Your task to perform on an android device: clear history in the chrome app Image 0: 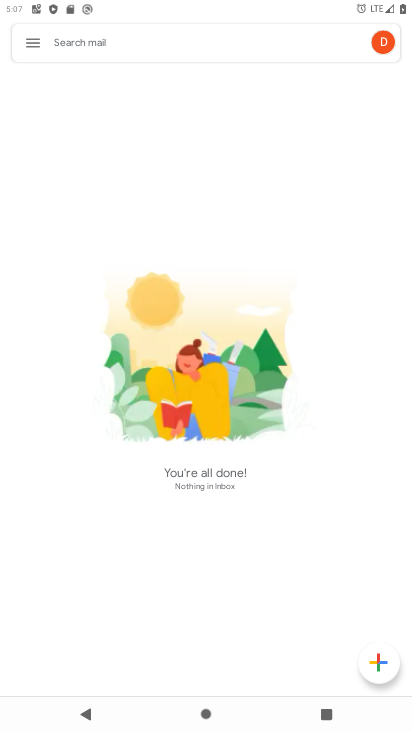
Step 0: press home button
Your task to perform on an android device: clear history in the chrome app Image 1: 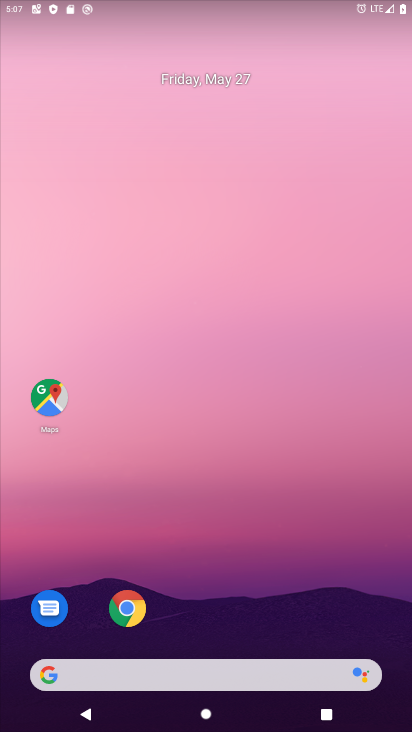
Step 1: click (124, 624)
Your task to perform on an android device: clear history in the chrome app Image 2: 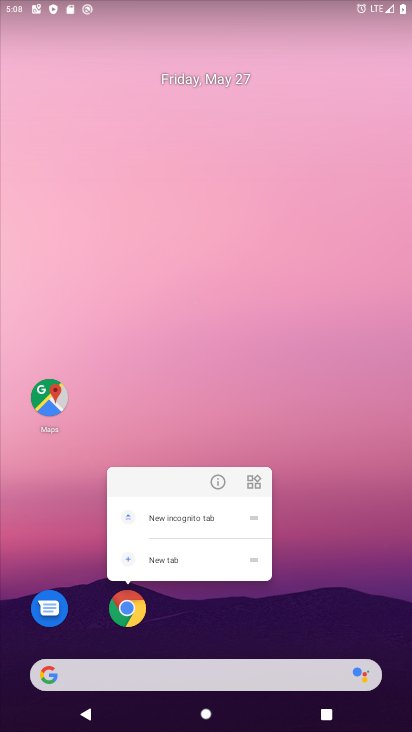
Step 2: click (137, 613)
Your task to perform on an android device: clear history in the chrome app Image 3: 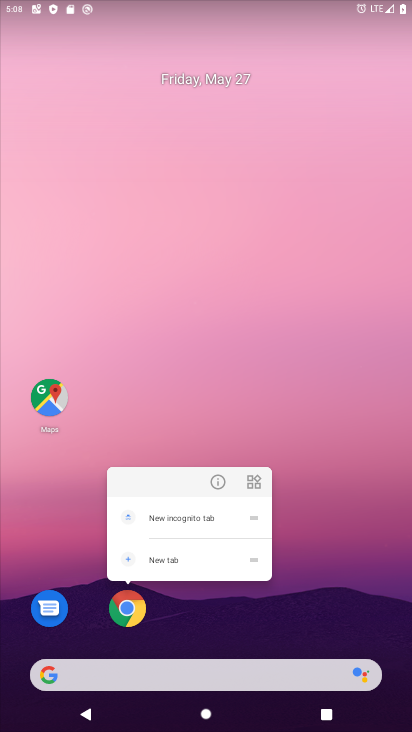
Step 3: click (130, 603)
Your task to perform on an android device: clear history in the chrome app Image 4: 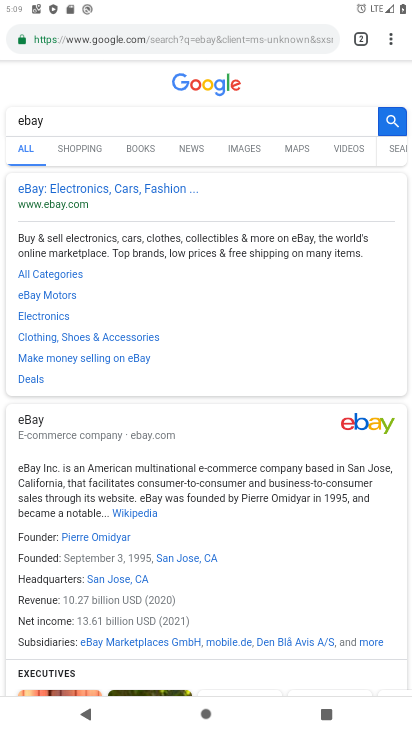
Step 4: click (387, 44)
Your task to perform on an android device: clear history in the chrome app Image 5: 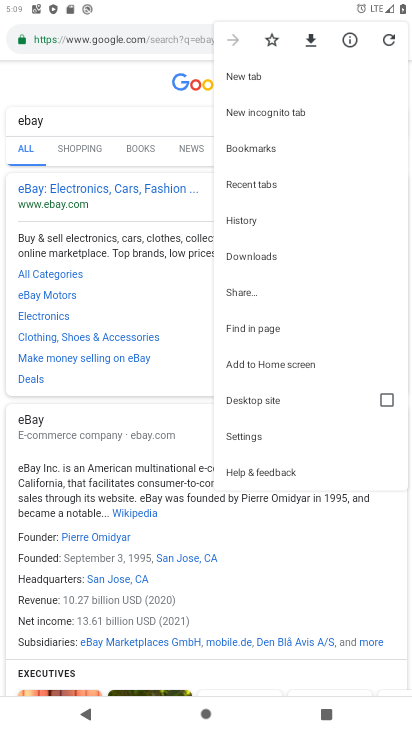
Step 5: click (233, 446)
Your task to perform on an android device: clear history in the chrome app Image 6: 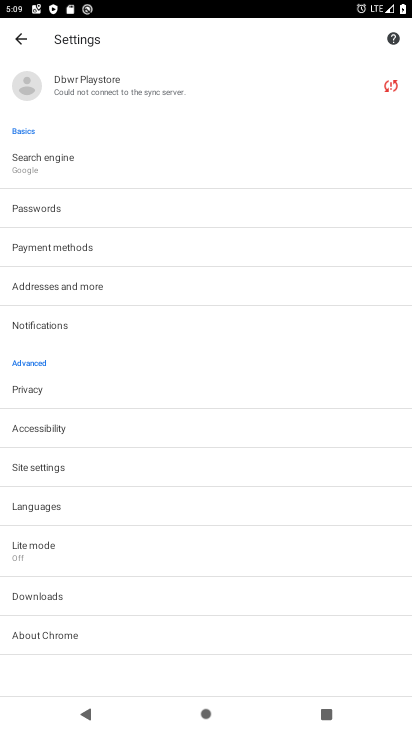
Step 6: click (33, 389)
Your task to perform on an android device: clear history in the chrome app Image 7: 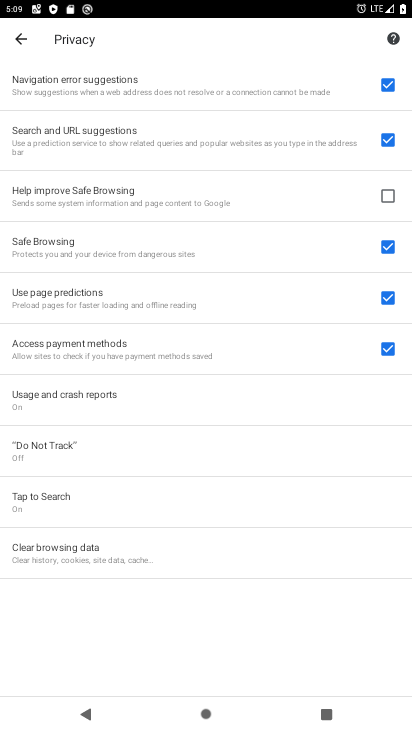
Step 7: click (88, 552)
Your task to perform on an android device: clear history in the chrome app Image 8: 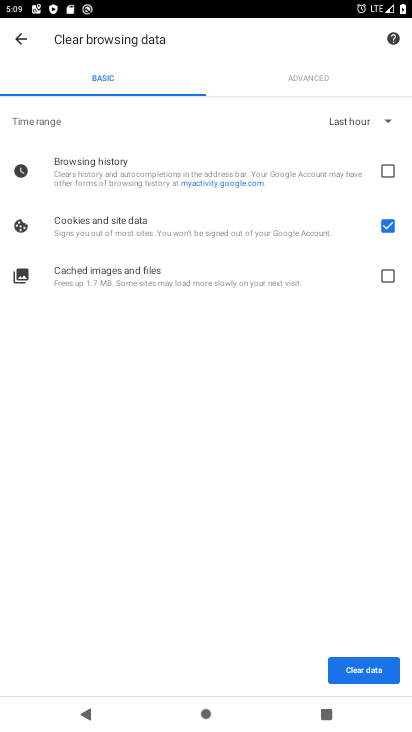
Step 8: click (388, 273)
Your task to perform on an android device: clear history in the chrome app Image 9: 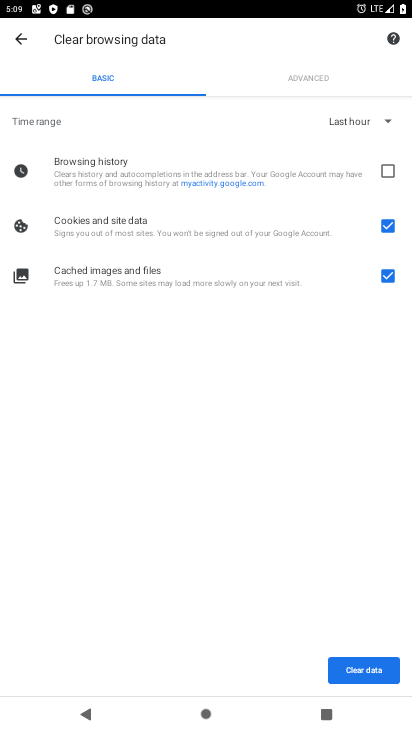
Step 9: click (389, 163)
Your task to perform on an android device: clear history in the chrome app Image 10: 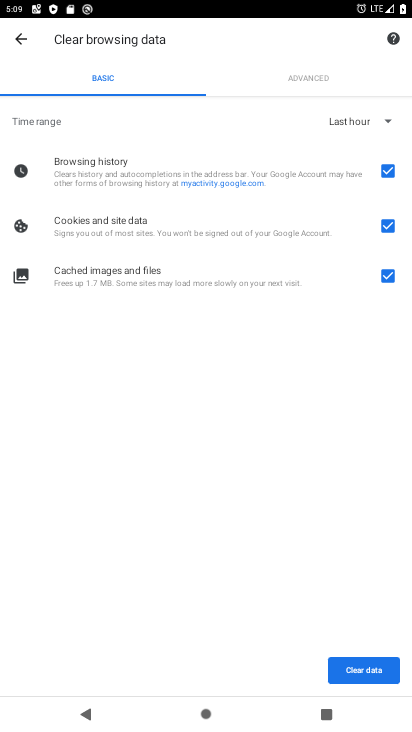
Step 10: click (362, 123)
Your task to perform on an android device: clear history in the chrome app Image 11: 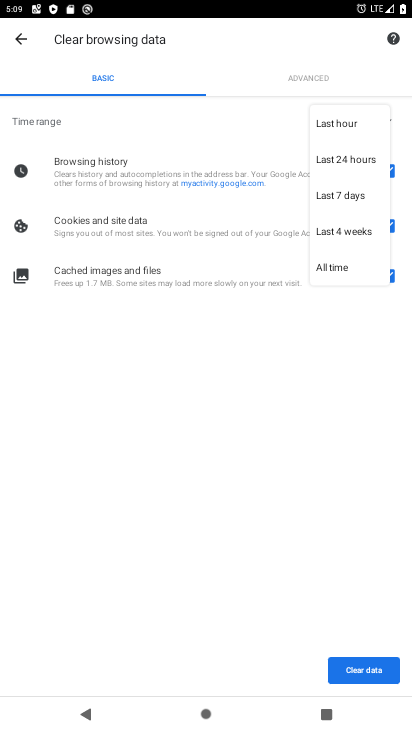
Step 11: click (347, 270)
Your task to perform on an android device: clear history in the chrome app Image 12: 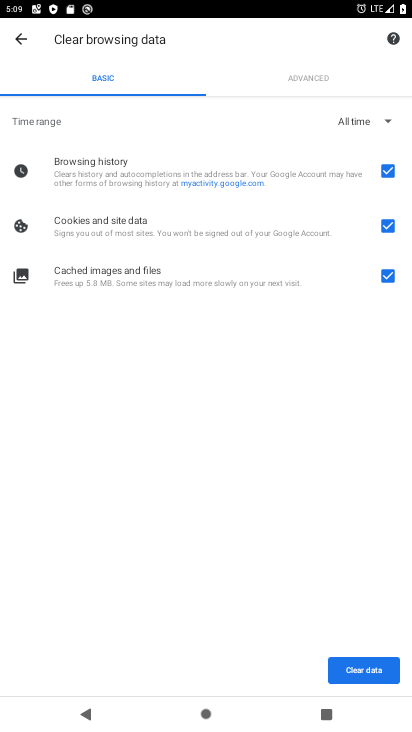
Step 12: click (367, 675)
Your task to perform on an android device: clear history in the chrome app Image 13: 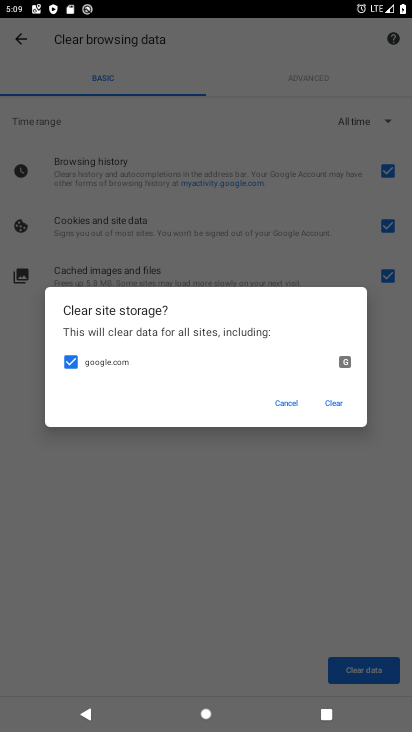
Step 13: click (330, 406)
Your task to perform on an android device: clear history in the chrome app Image 14: 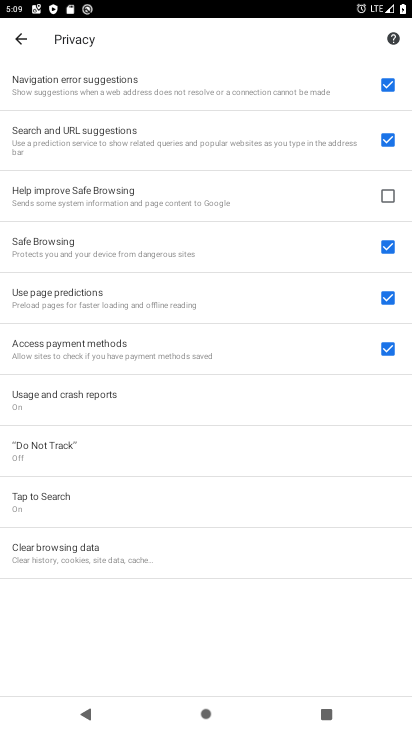
Step 14: task complete